Your task to perform on an android device: see tabs open on other devices in the chrome app Image 0: 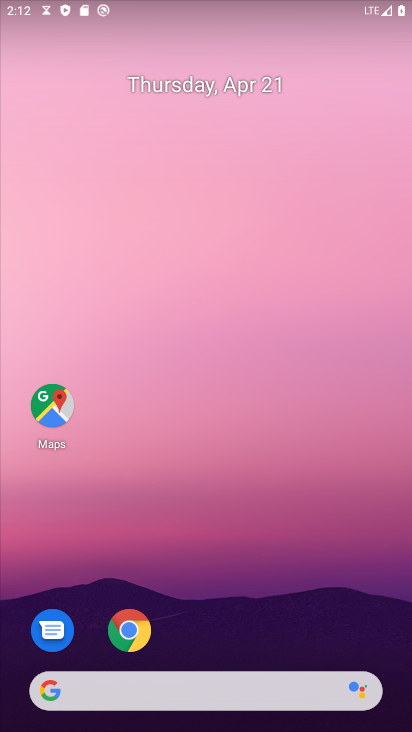
Step 0: click (133, 634)
Your task to perform on an android device: see tabs open on other devices in the chrome app Image 1: 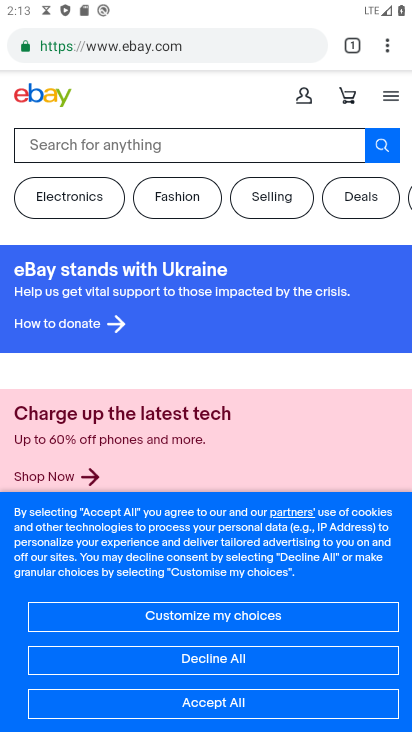
Step 1: click (384, 46)
Your task to perform on an android device: see tabs open on other devices in the chrome app Image 2: 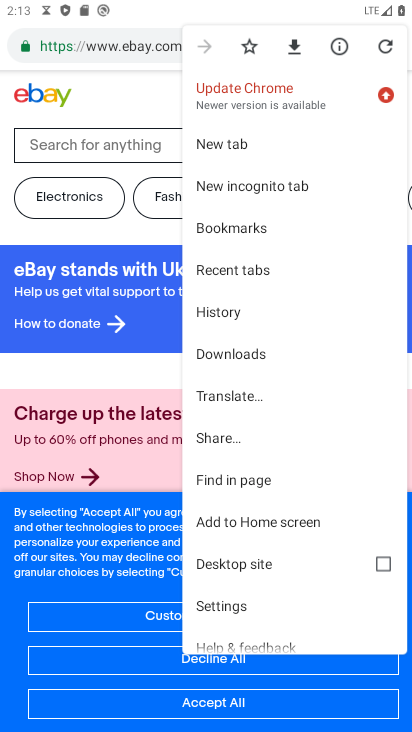
Step 2: click (221, 269)
Your task to perform on an android device: see tabs open on other devices in the chrome app Image 3: 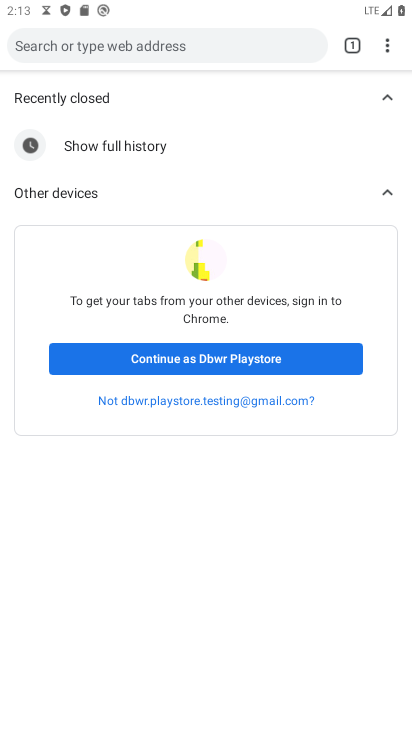
Step 3: click (193, 348)
Your task to perform on an android device: see tabs open on other devices in the chrome app Image 4: 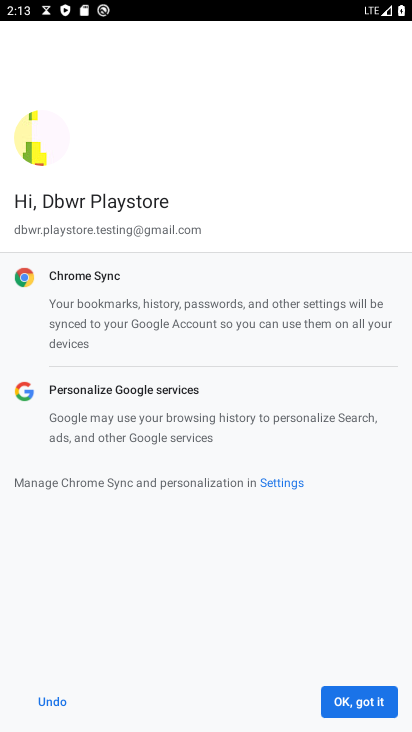
Step 4: drag from (189, 487) to (208, 349)
Your task to perform on an android device: see tabs open on other devices in the chrome app Image 5: 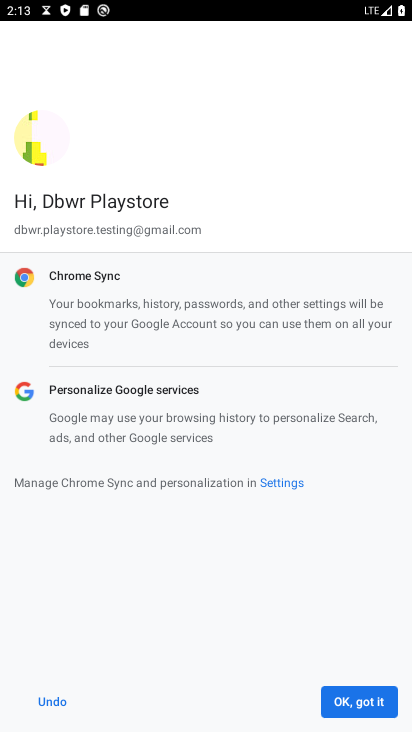
Step 5: click (380, 705)
Your task to perform on an android device: see tabs open on other devices in the chrome app Image 6: 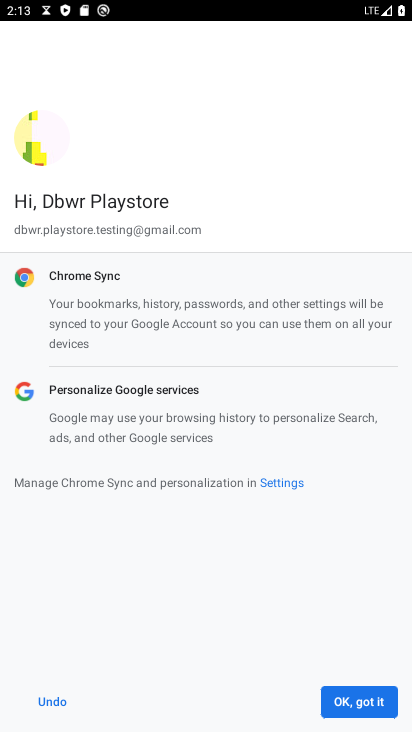
Step 6: click (356, 709)
Your task to perform on an android device: see tabs open on other devices in the chrome app Image 7: 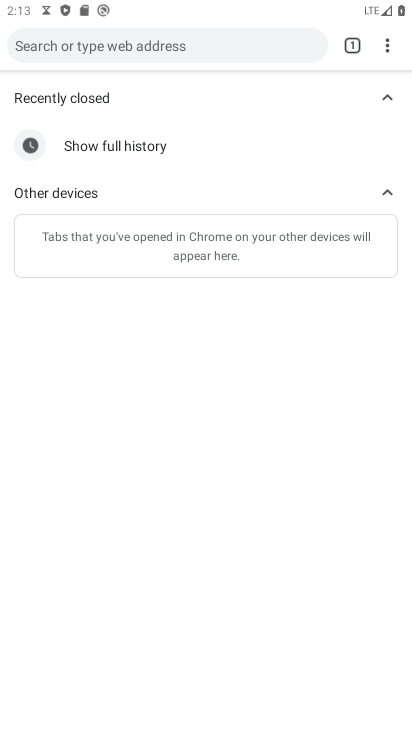
Step 7: task complete